Your task to perform on an android device: Open location settings Image 0: 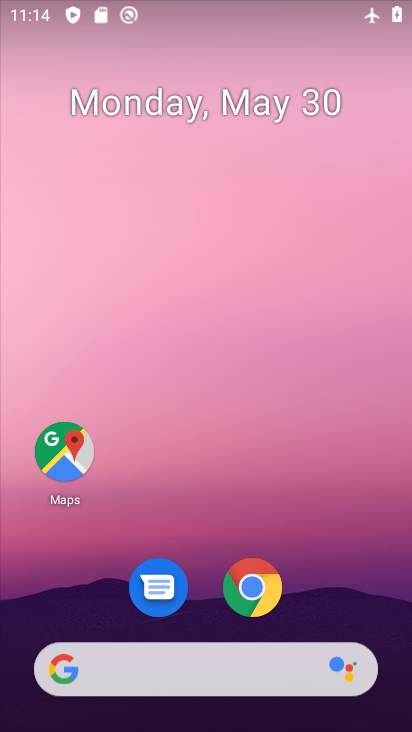
Step 0: drag from (204, 615) to (252, 109)
Your task to perform on an android device: Open location settings Image 1: 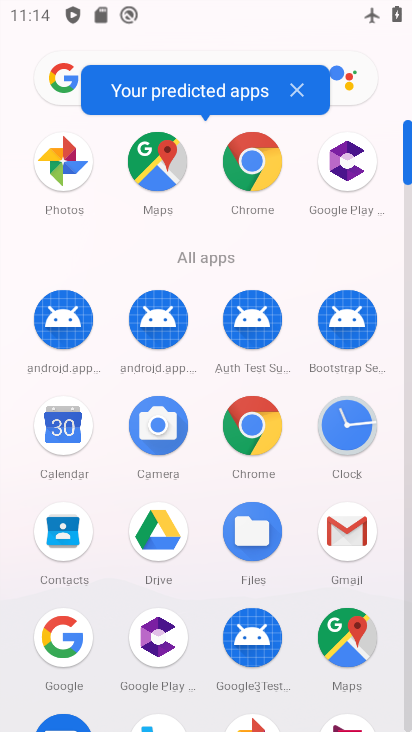
Step 1: drag from (205, 628) to (245, 266)
Your task to perform on an android device: Open location settings Image 2: 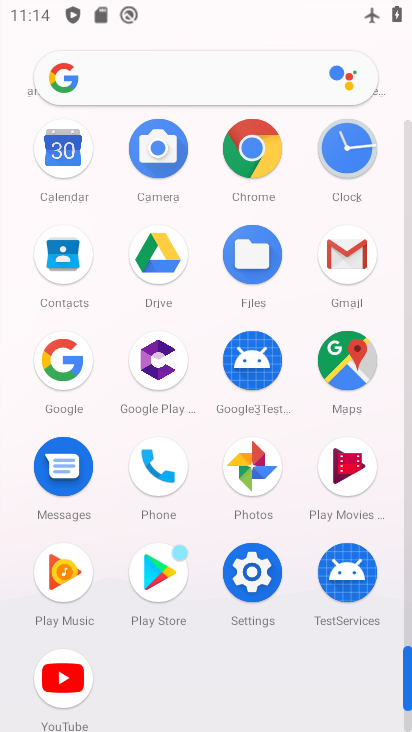
Step 2: click (240, 578)
Your task to perform on an android device: Open location settings Image 3: 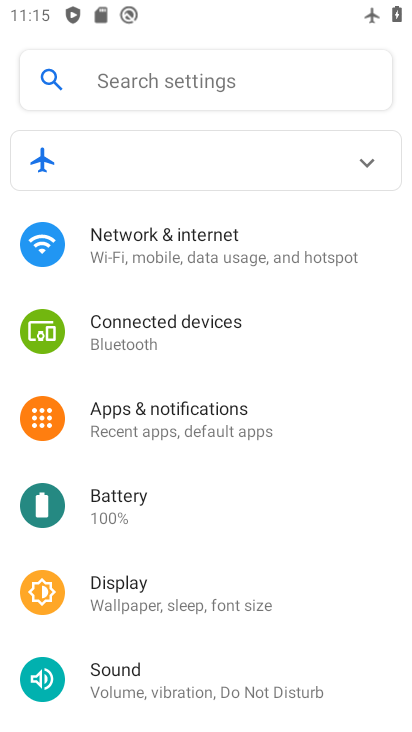
Step 3: drag from (147, 639) to (281, 173)
Your task to perform on an android device: Open location settings Image 4: 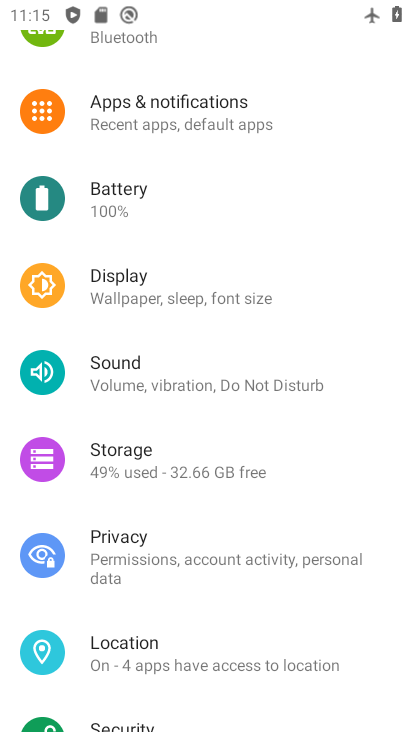
Step 4: click (113, 658)
Your task to perform on an android device: Open location settings Image 5: 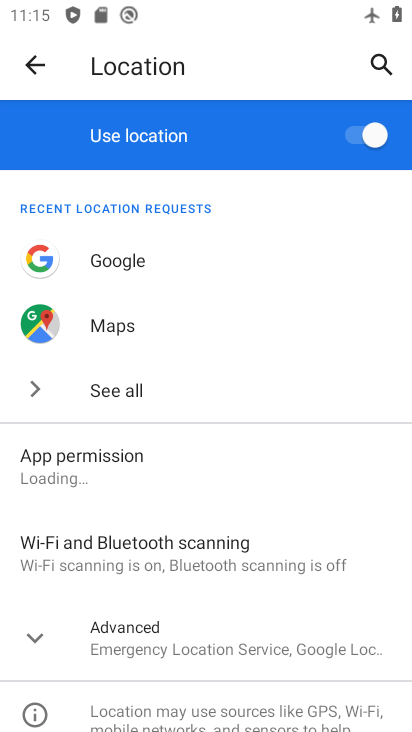
Step 5: task complete